Your task to perform on an android device: Open Reddit.com Image 0: 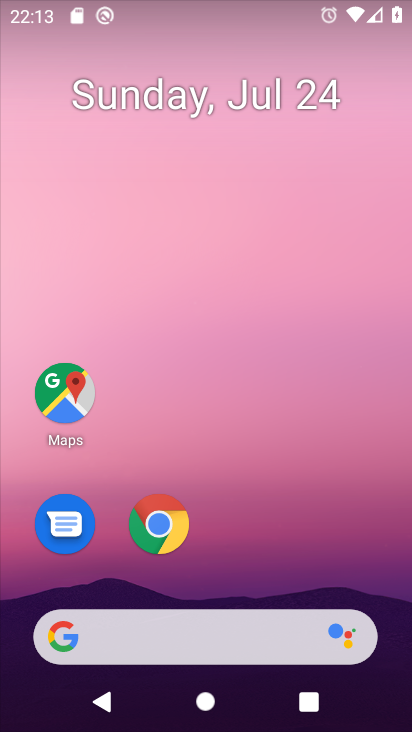
Step 0: click (256, 645)
Your task to perform on an android device: Open Reddit.com Image 1: 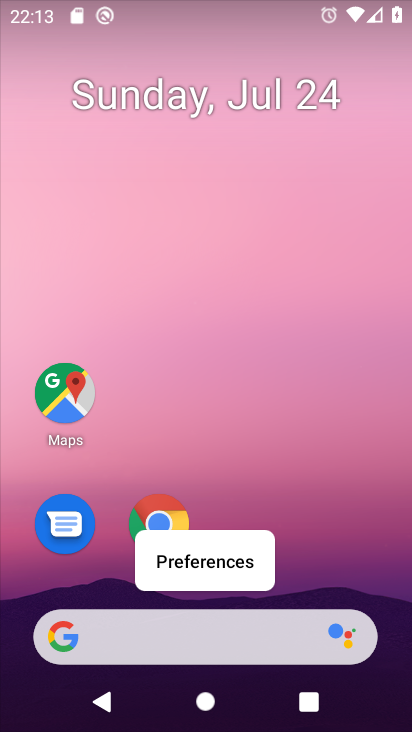
Step 1: click (161, 649)
Your task to perform on an android device: Open Reddit.com Image 2: 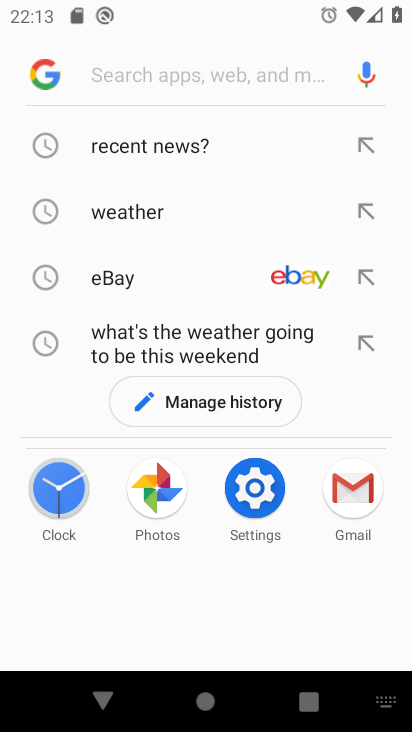
Step 2: type "reddit.com"
Your task to perform on an android device: Open Reddit.com Image 3: 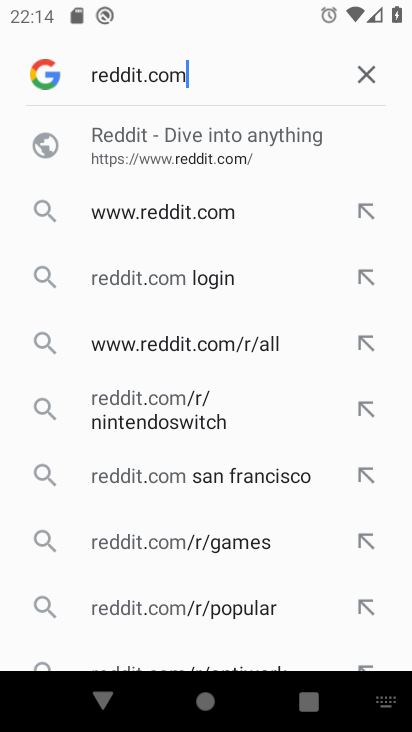
Step 3: click (246, 160)
Your task to perform on an android device: Open Reddit.com Image 4: 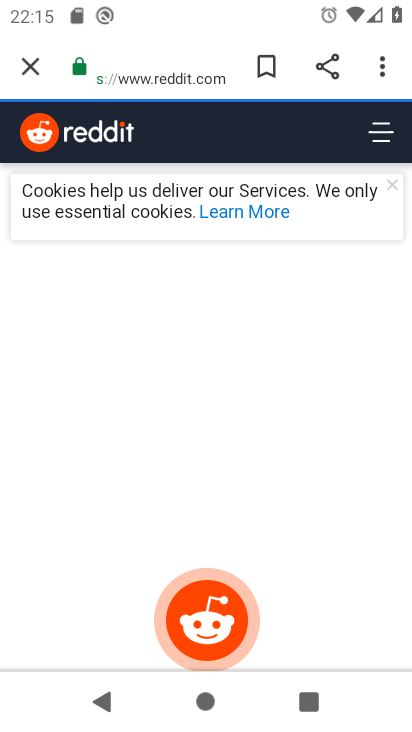
Step 4: click (200, 611)
Your task to perform on an android device: Open Reddit.com Image 5: 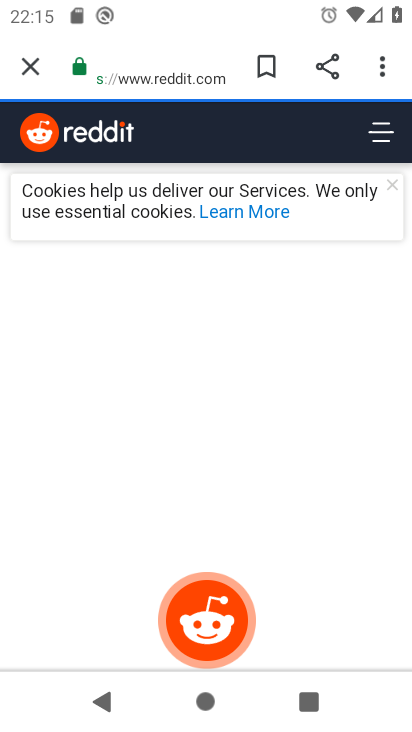
Step 5: drag from (274, 534) to (272, 243)
Your task to perform on an android device: Open Reddit.com Image 6: 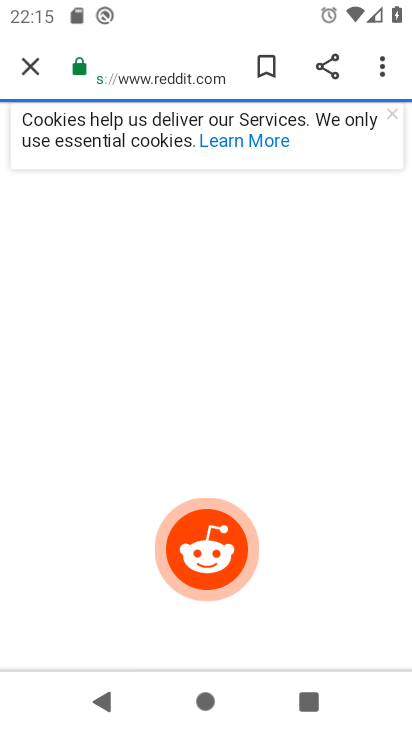
Step 6: drag from (274, 218) to (328, 498)
Your task to perform on an android device: Open Reddit.com Image 7: 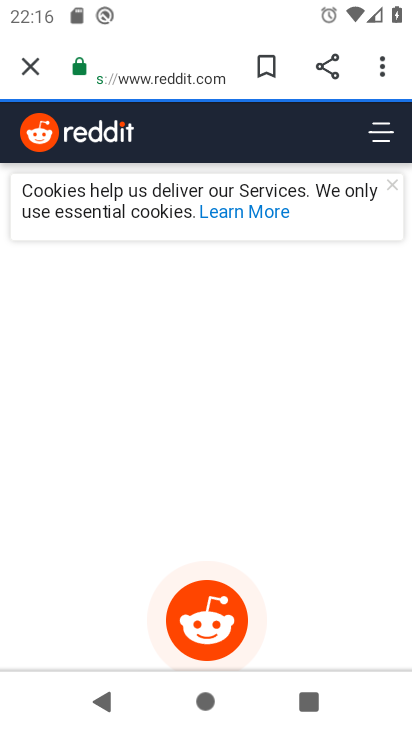
Step 7: drag from (211, 616) to (222, 342)
Your task to perform on an android device: Open Reddit.com Image 8: 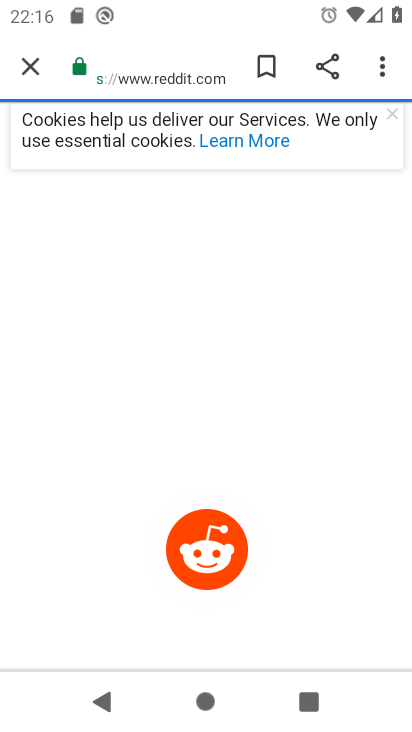
Step 8: click (207, 547)
Your task to perform on an android device: Open Reddit.com Image 9: 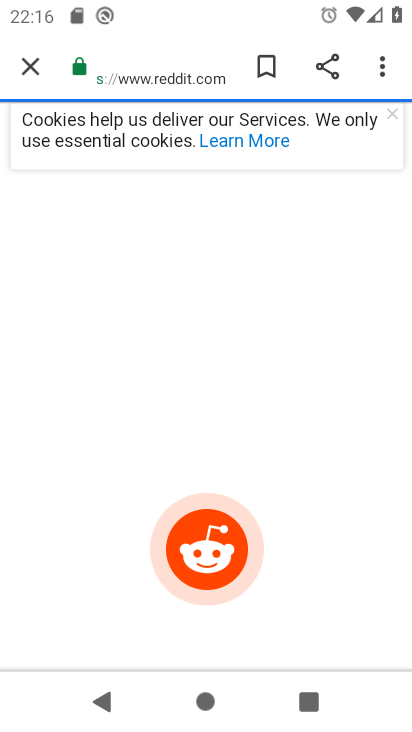
Step 9: click (207, 547)
Your task to perform on an android device: Open Reddit.com Image 10: 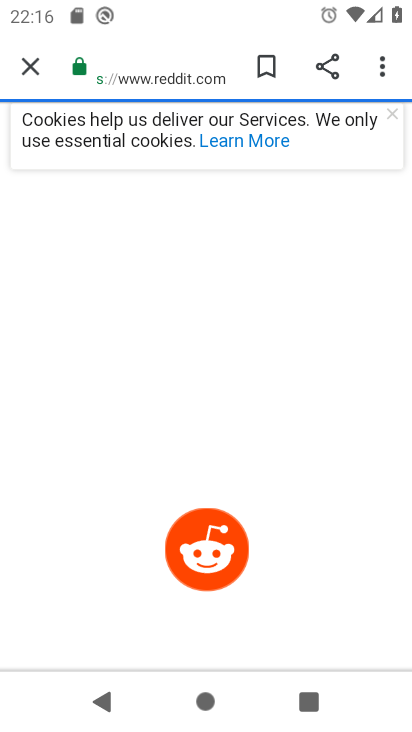
Step 10: task complete